Your task to perform on an android device: Go to battery settings Image 0: 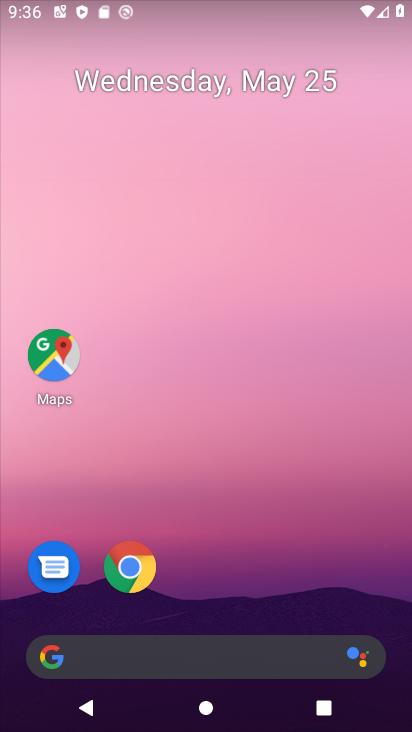
Step 0: drag from (277, 601) to (284, 4)
Your task to perform on an android device: Go to battery settings Image 1: 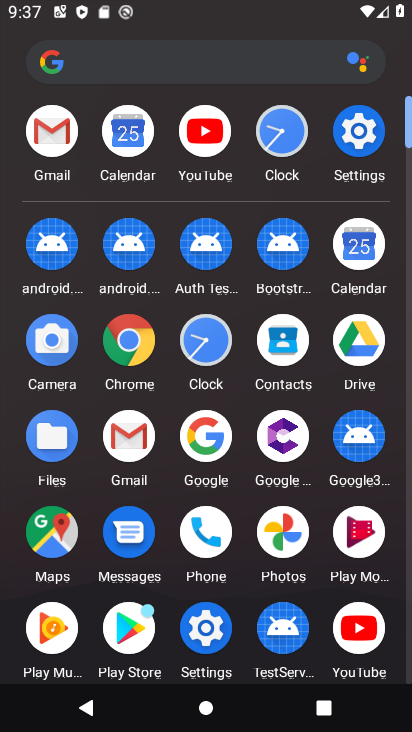
Step 1: click (355, 146)
Your task to perform on an android device: Go to battery settings Image 2: 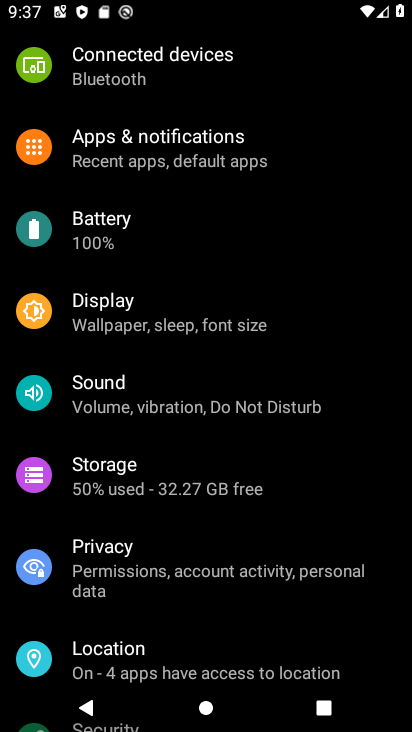
Step 2: click (160, 229)
Your task to perform on an android device: Go to battery settings Image 3: 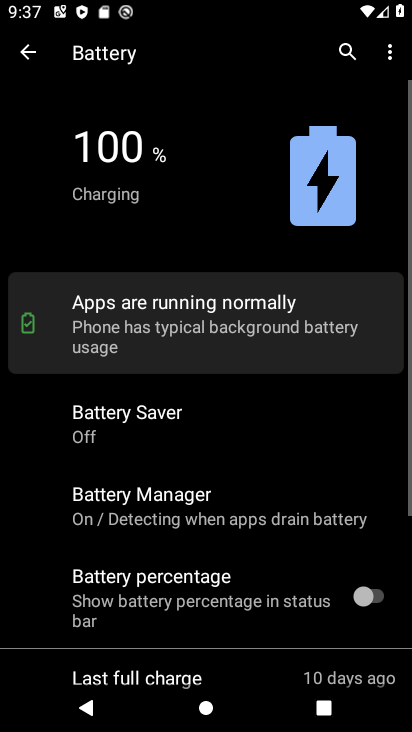
Step 3: task complete